Your task to perform on an android device: Open maps Image 0: 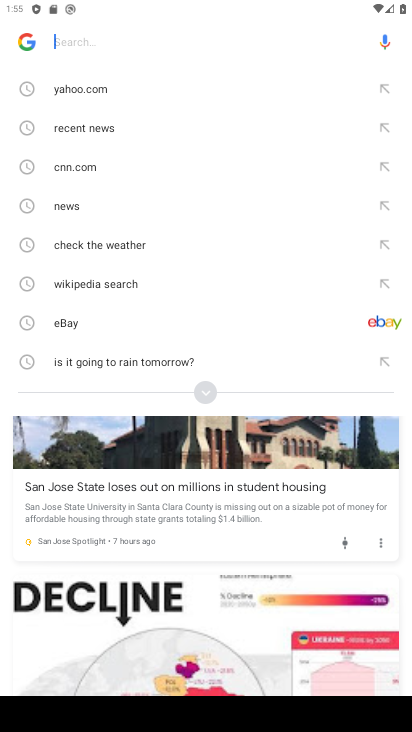
Step 0: press home button
Your task to perform on an android device: Open maps Image 1: 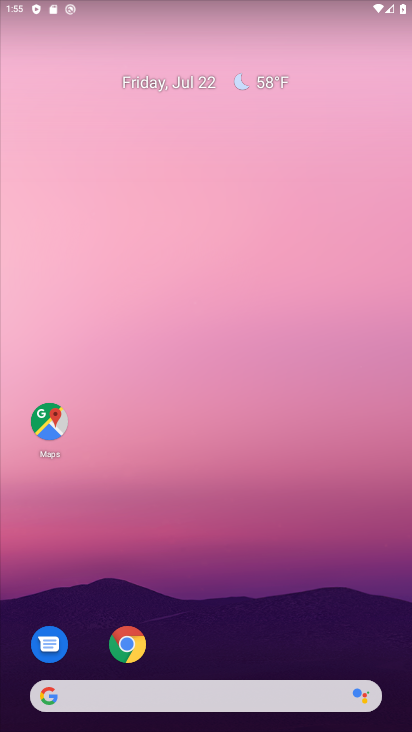
Step 1: click (43, 418)
Your task to perform on an android device: Open maps Image 2: 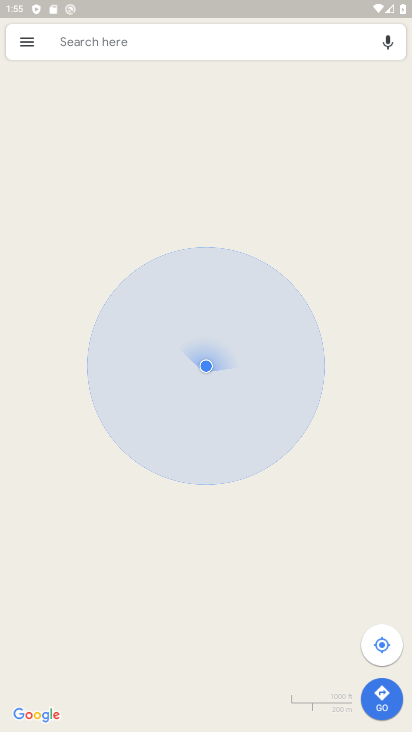
Step 2: task complete